Your task to perform on an android device: Set the phone to "Do not disturb". Image 0: 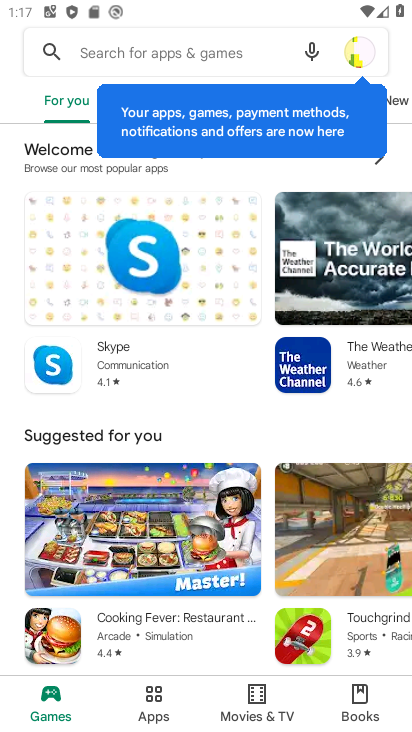
Step 0: press home button
Your task to perform on an android device: Set the phone to "Do not disturb". Image 1: 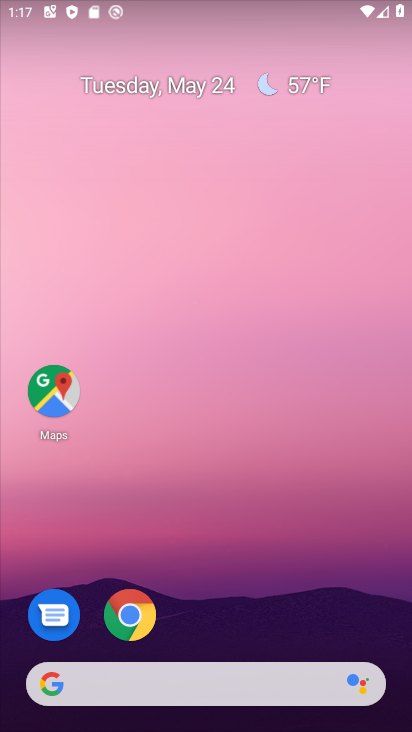
Step 1: drag from (174, 660) to (223, 5)
Your task to perform on an android device: Set the phone to "Do not disturb". Image 2: 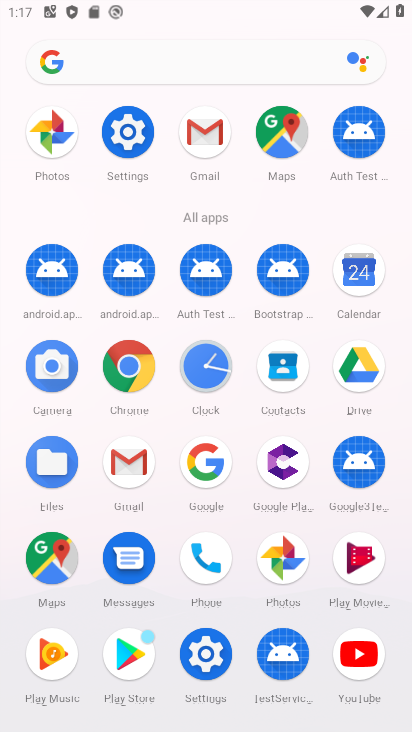
Step 2: click (120, 153)
Your task to perform on an android device: Set the phone to "Do not disturb". Image 3: 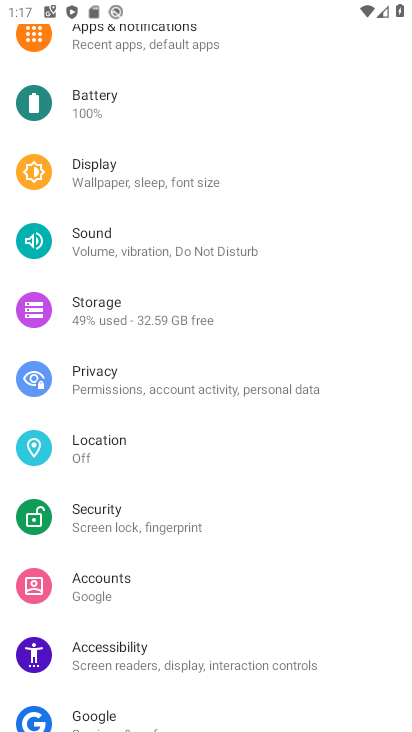
Step 3: click (131, 236)
Your task to perform on an android device: Set the phone to "Do not disturb". Image 4: 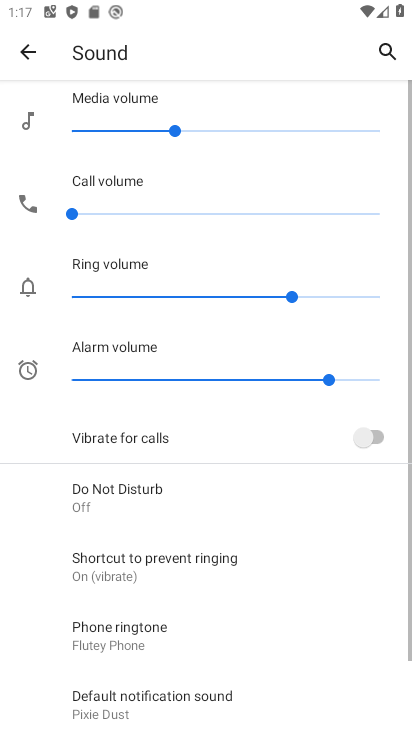
Step 4: drag from (93, 577) to (200, 23)
Your task to perform on an android device: Set the phone to "Do not disturb". Image 5: 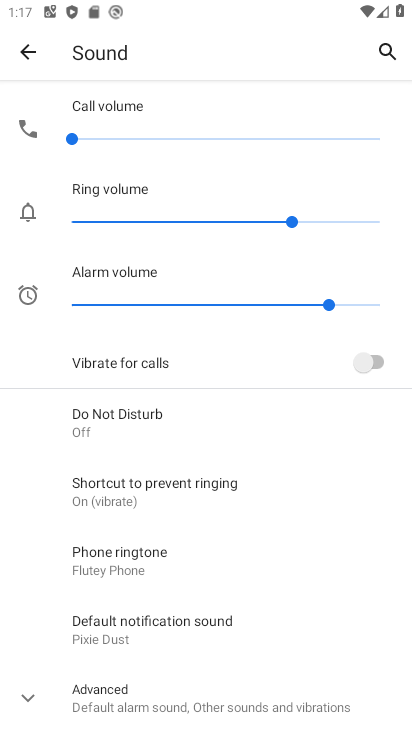
Step 5: click (80, 424)
Your task to perform on an android device: Set the phone to "Do not disturb". Image 6: 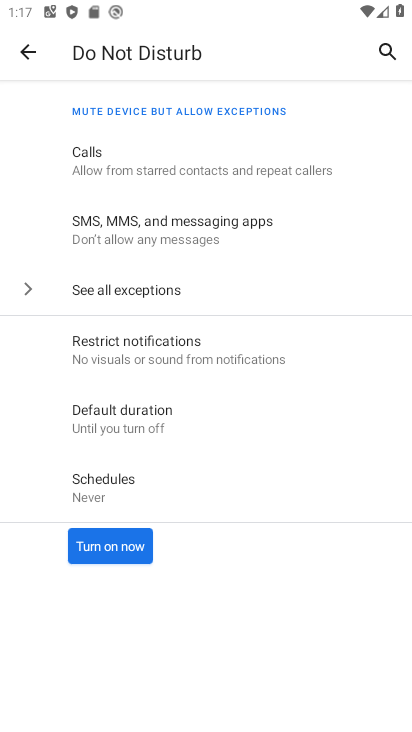
Step 6: click (71, 546)
Your task to perform on an android device: Set the phone to "Do not disturb". Image 7: 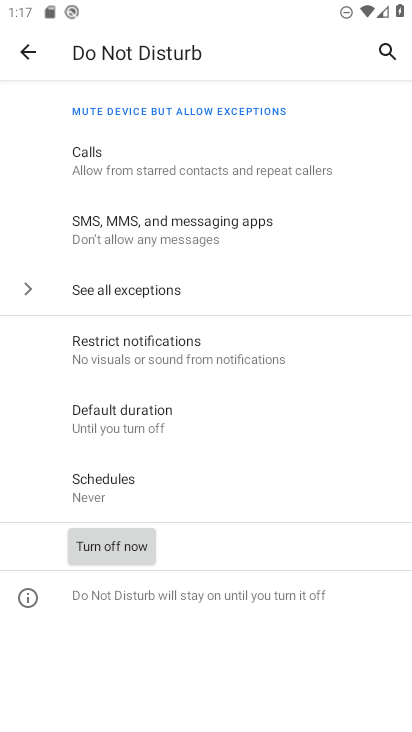
Step 7: click (369, 458)
Your task to perform on an android device: Set the phone to "Do not disturb". Image 8: 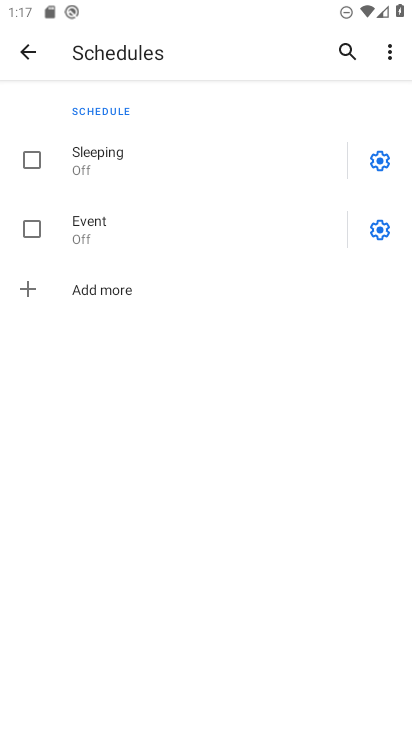
Step 8: task complete